Your task to perform on an android device: install app "Indeed Job Search" Image 0: 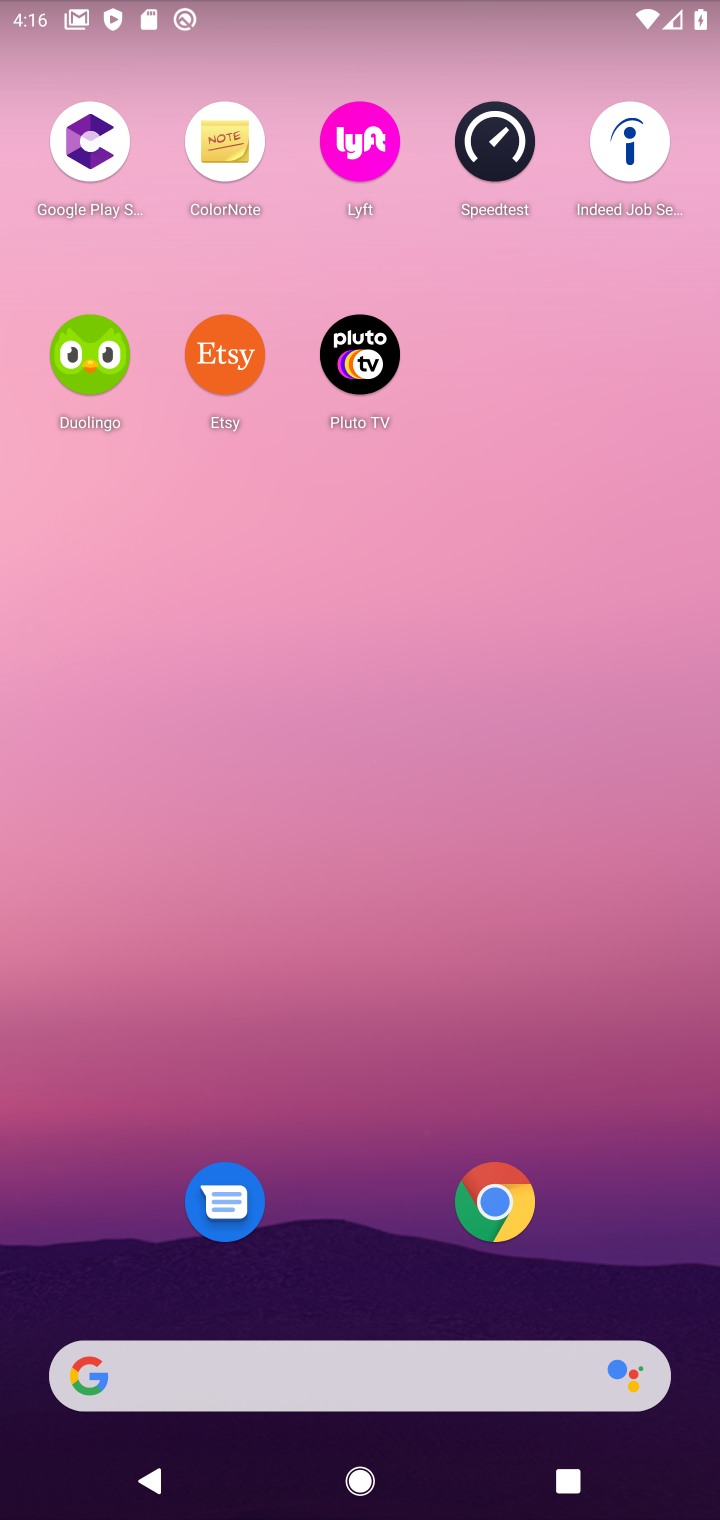
Step 0: drag from (349, 1263) to (259, 343)
Your task to perform on an android device: install app "Indeed Job Search" Image 1: 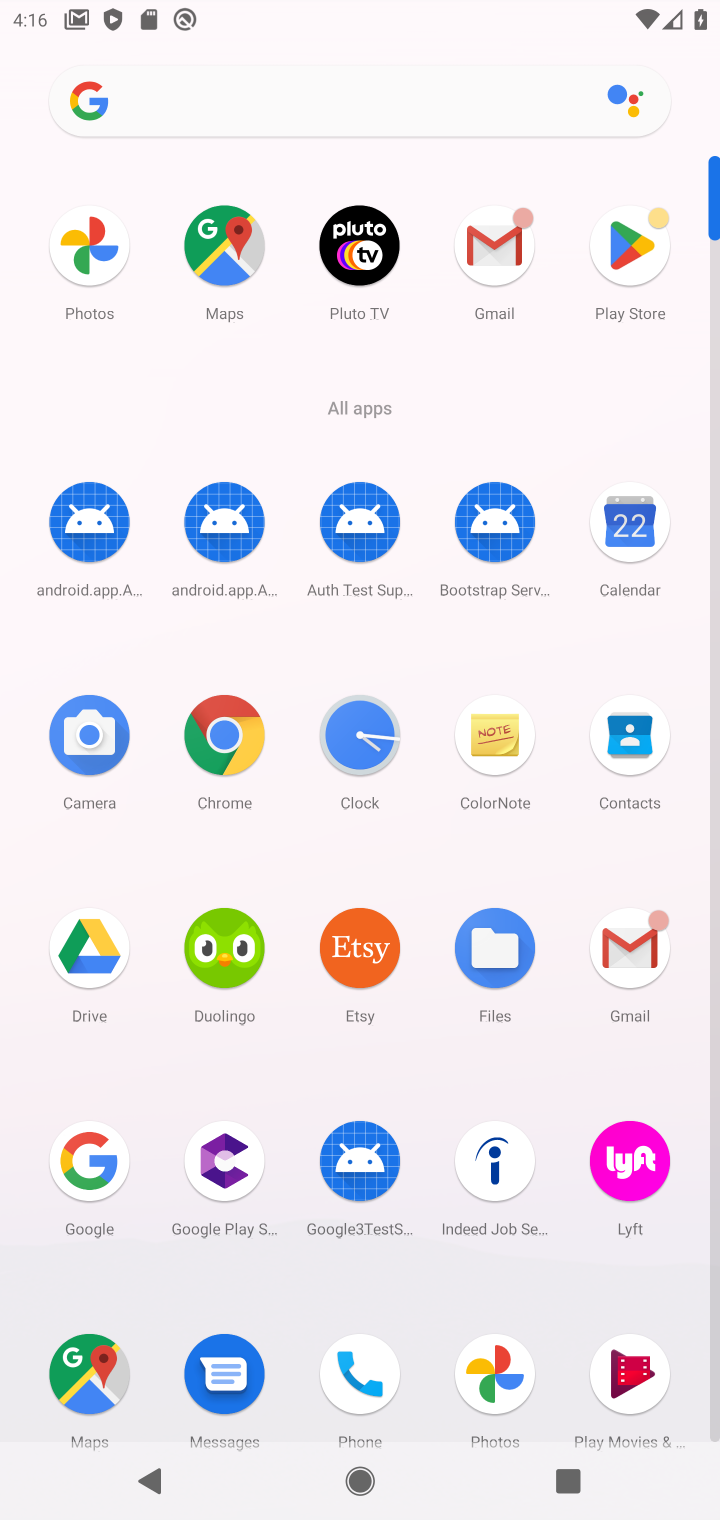
Step 1: click (656, 270)
Your task to perform on an android device: install app "Indeed Job Search" Image 2: 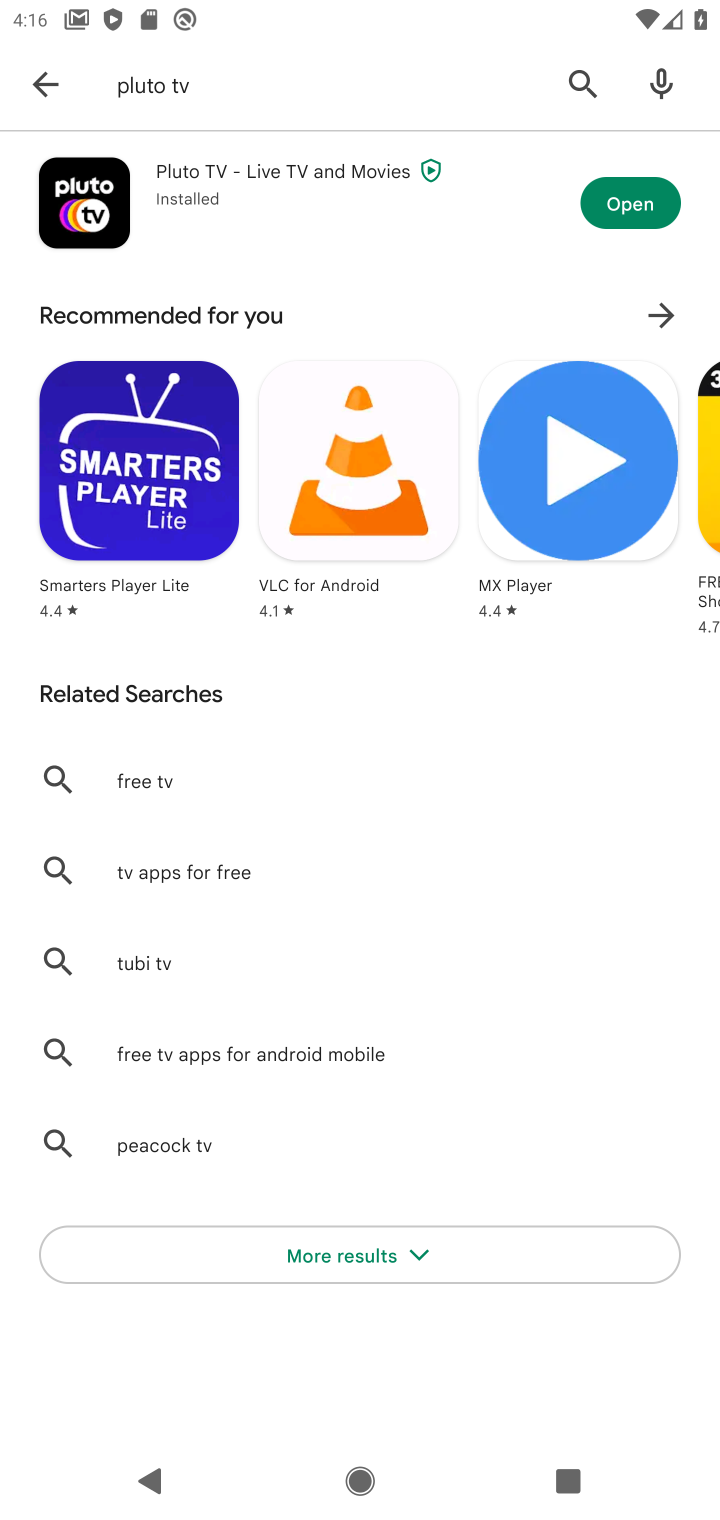
Step 2: click (382, 64)
Your task to perform on an android device: install app "Indeed Job Search" Image 3: 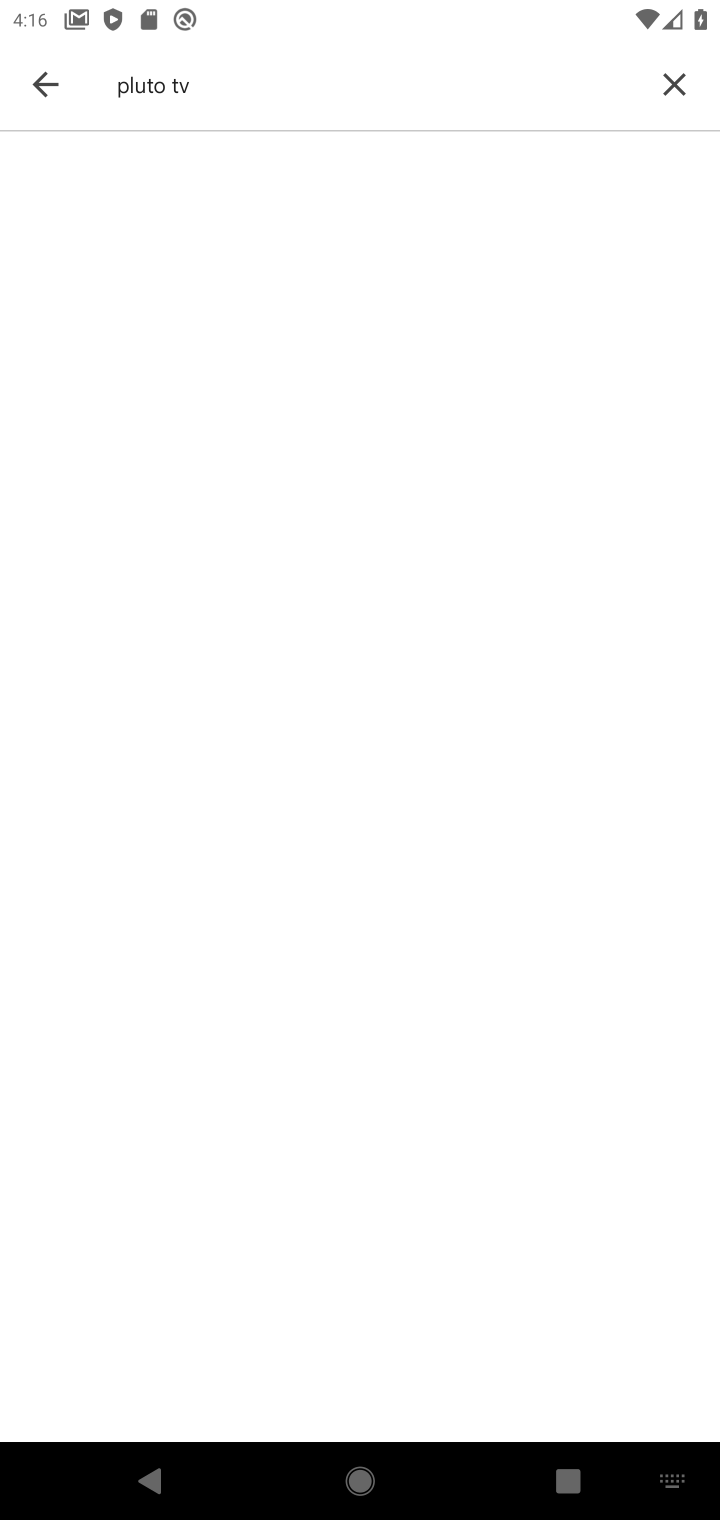
Step 3: click (661, 71)
Your task to perform on an android device: install app "Indeed Job Search" Image 4: 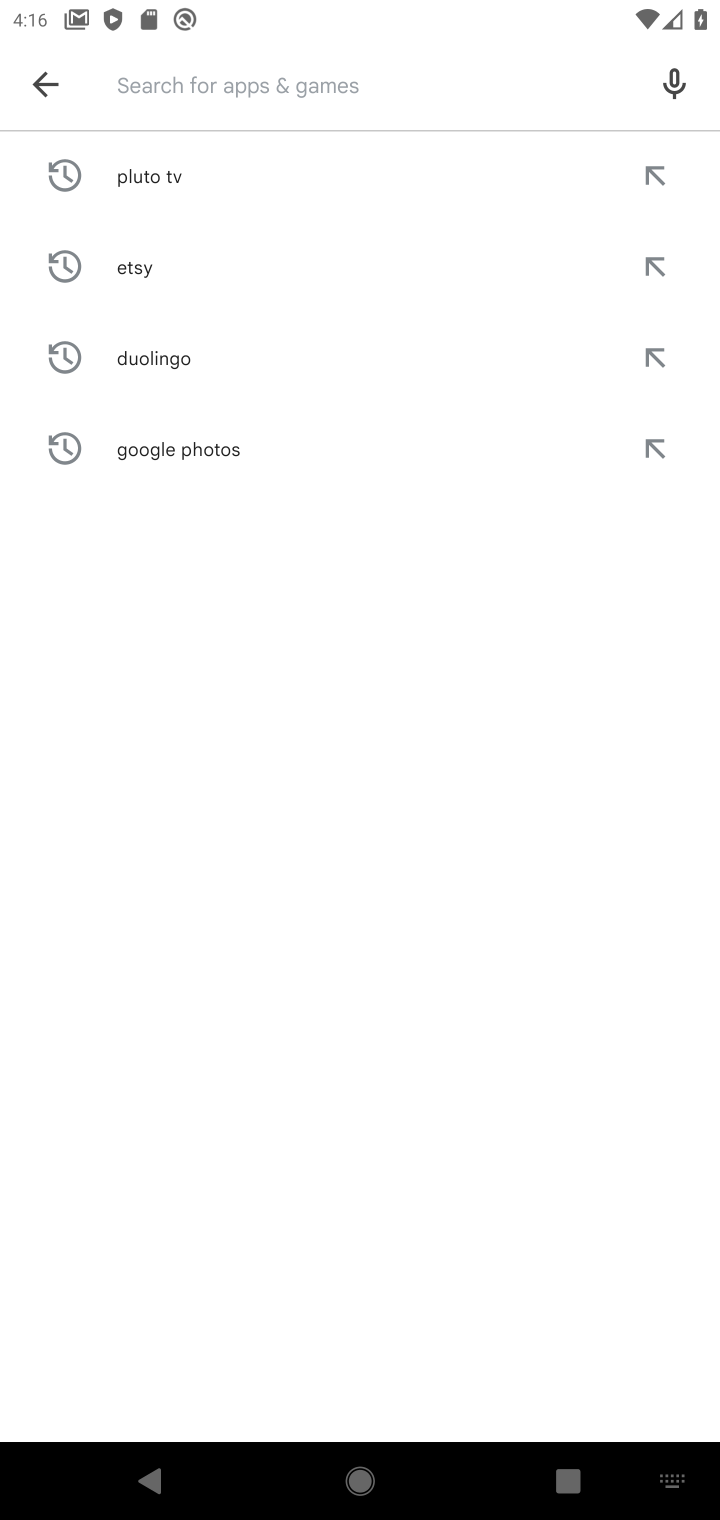
Step 4: type "indeed job search"
Your task to perform on an android device: install app "Indeed Job Search" Image 5: 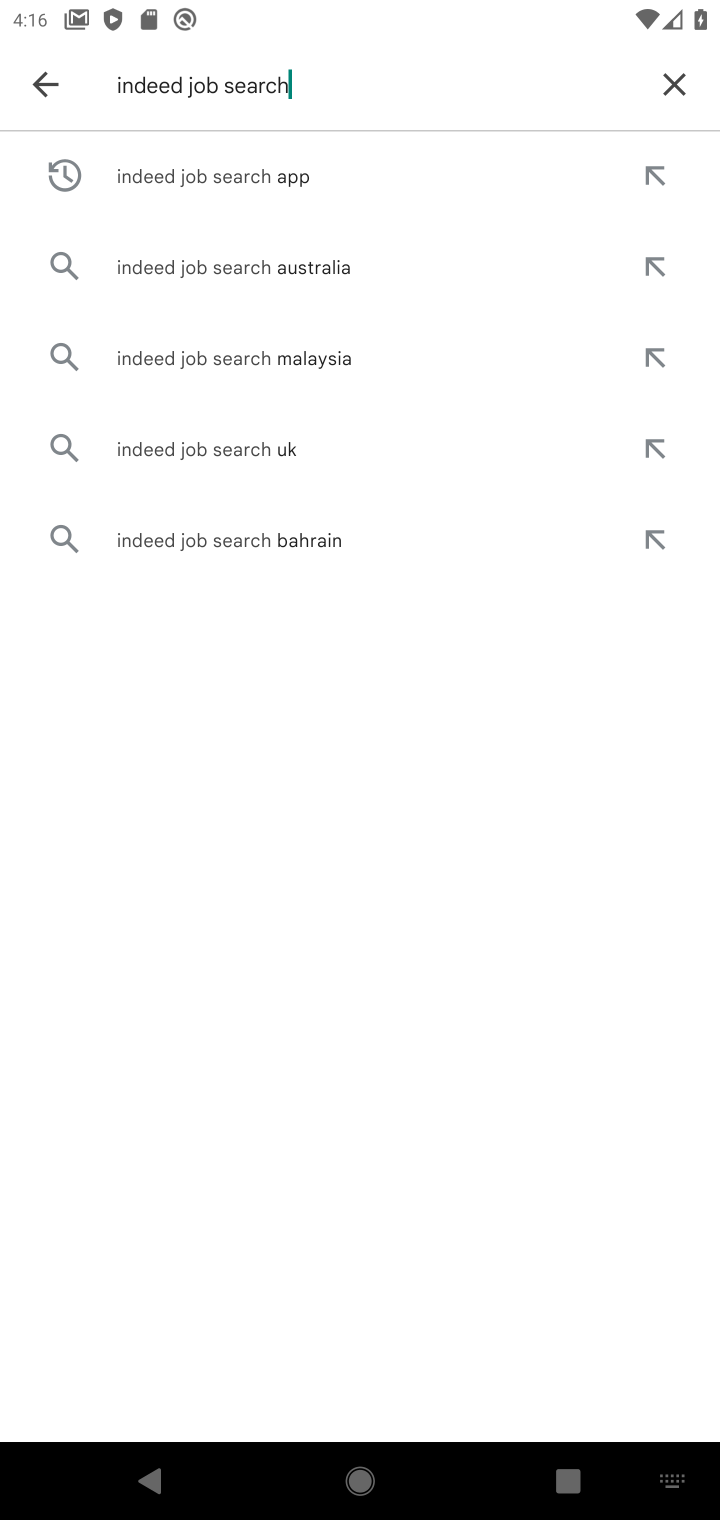
Step 5: click (249, 172)
Your task to perform on an android device: install app "Indeed Job Search" Image 6: 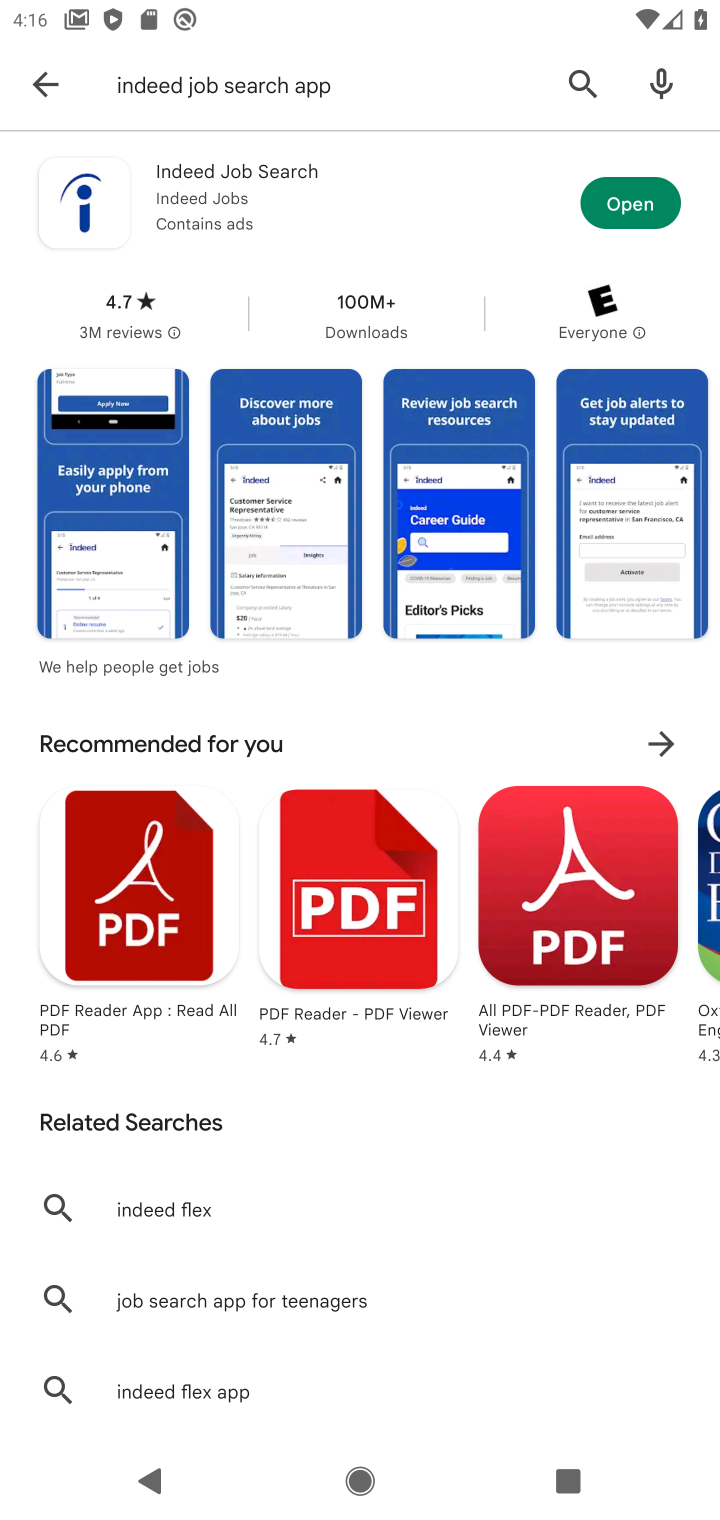
Step 6: task complete